Your task to perform on an android device: What's the weather going to be this weekend? Image 0: 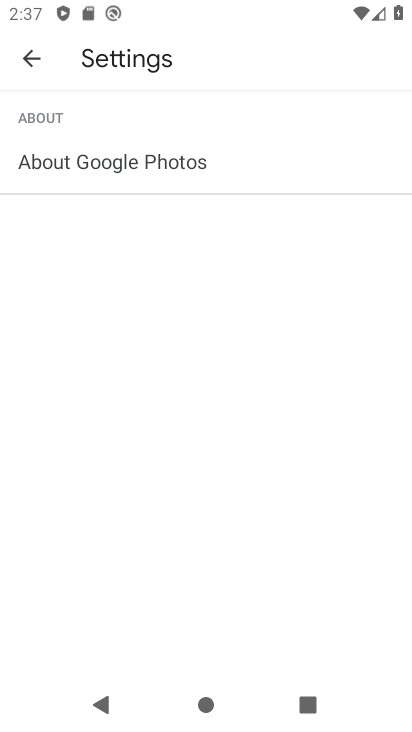
Step 0: press home button
Your task to perform on an android device: What's the weather going to be this weekend? Image 1: 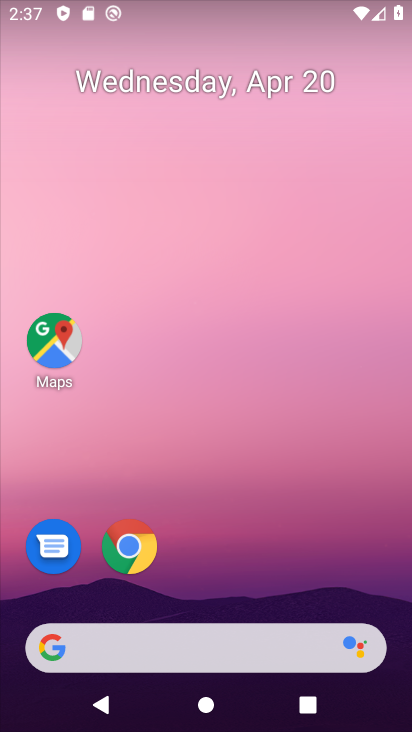
Step 1: click (133, 547)
Your task to perform on an android device: What's the weather going to be this weekend? Image 2: 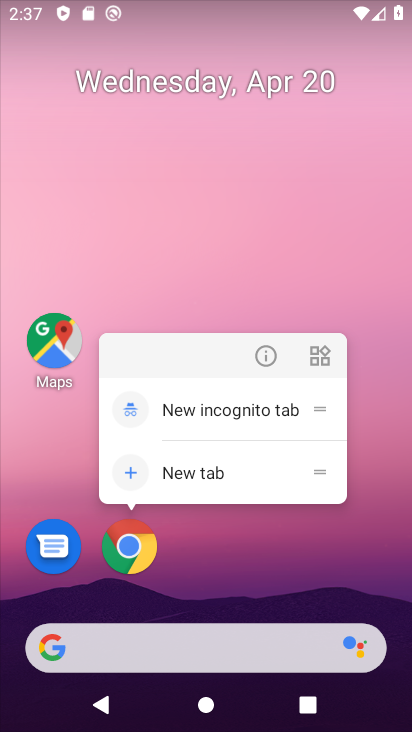
Step 2: click (141, 560)
Your task to perform on an android device: What's the weather going to be this weekend? Image 3: 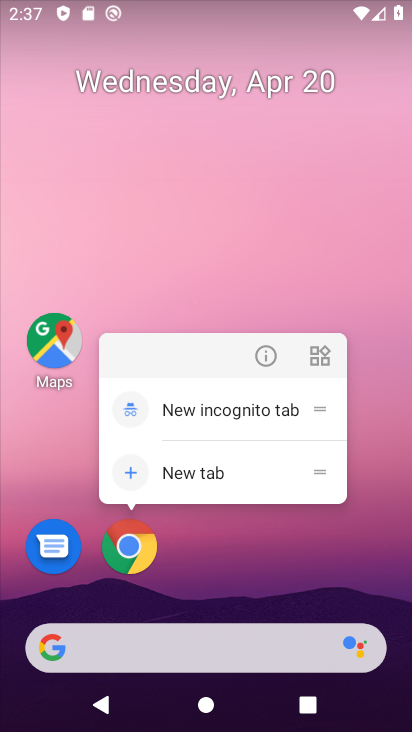
Step 3: click (121, 563)
Your task to perform on an android device: What's the weather going to be this weekend? Image 4: 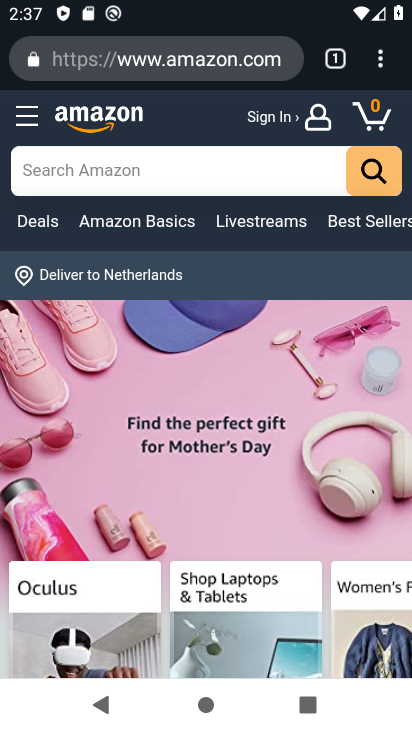
Step 4: click (164, 51)
Your task to perform on an android device: What's the weather going to be this weekend? Image 5: 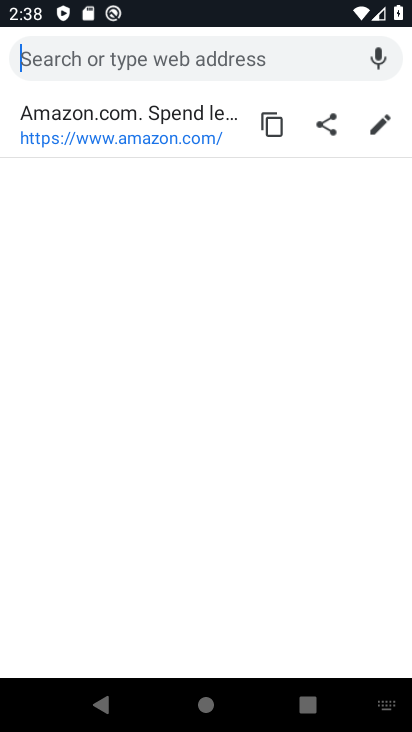
Step 5: type "whats the weather going to be this weekend"
Your task to perform on an android device: What's the weather going to be this weekend? Image 6: 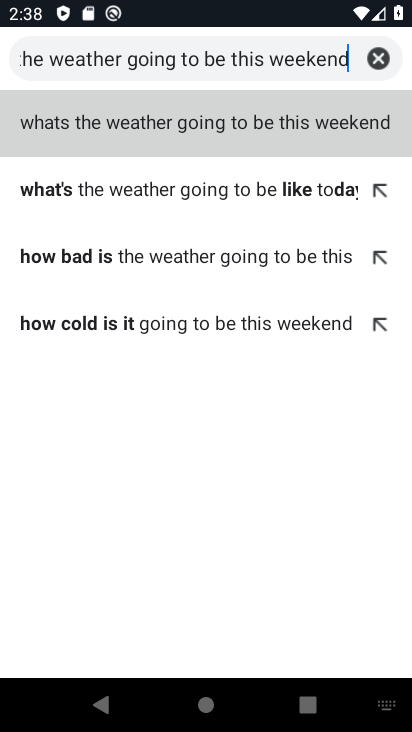
Step 6: click (296, 132)
Your task to perform on an android device: What's the weather going to be this weekend? Image 7: 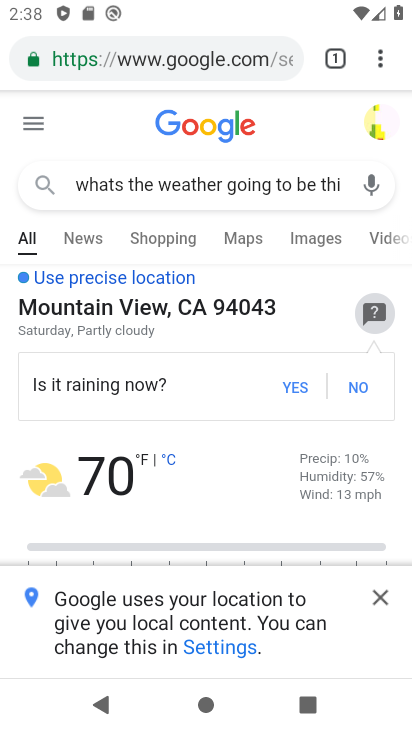
Step 7: task complete